Your task to perform on an android device: Open privacy settings Image 0: 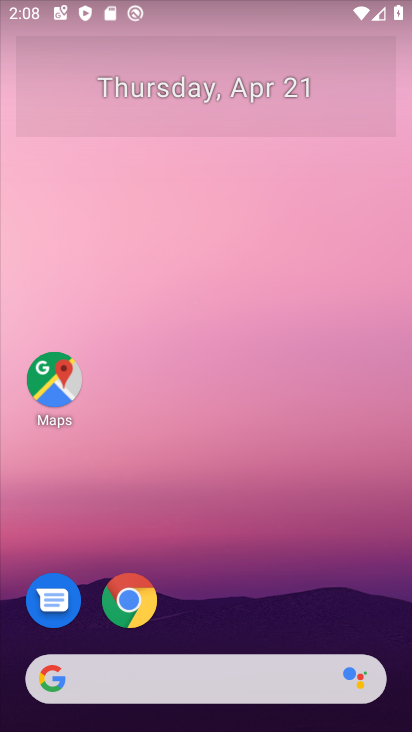
Step 0: drag from (308, 524) to (327, 121)
Your task to perform on an android device: Open privacy settings Image 1: 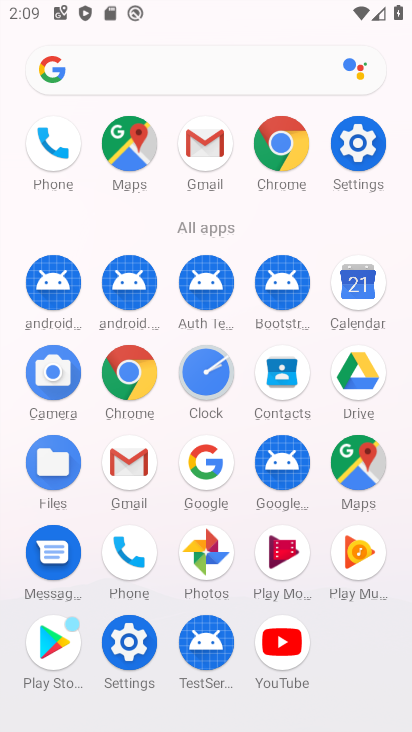
Step 1: click (131, 643)
Your task to perform on an android device: Open privacy settings Image 2: 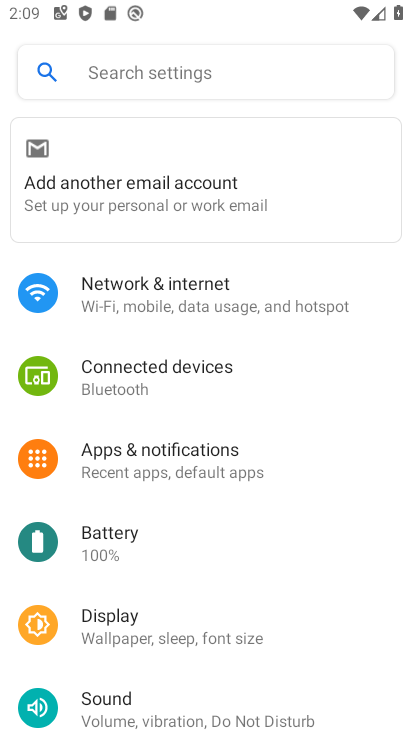
Step 2: drag from (162, 598) to (253, 180)
Your task to perform on an android device: Open privacy settings Image 3: 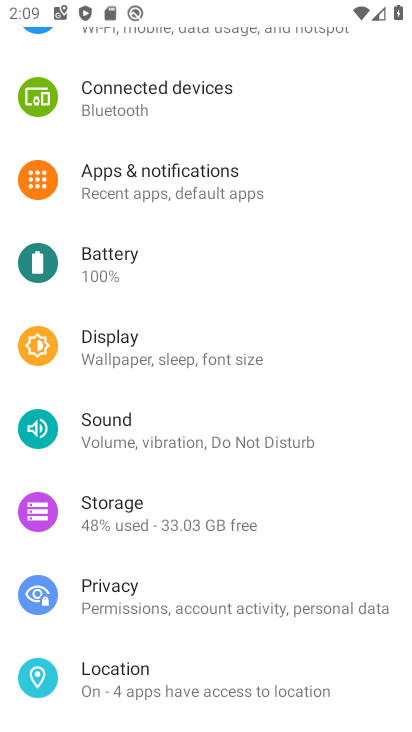
Step 3: drag from (189, 583) to (255, 387)
Your task to perform on an android device: Open privacy settings Image 4: 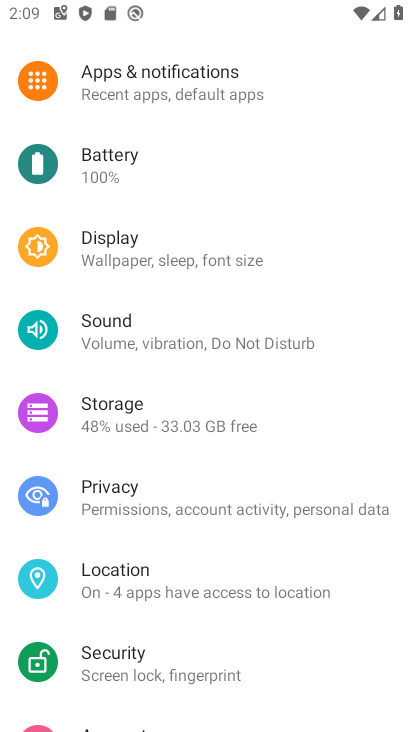
Step 4: click (145, 491)
Your task to perform on an android device: Open privacy settings Image 5: 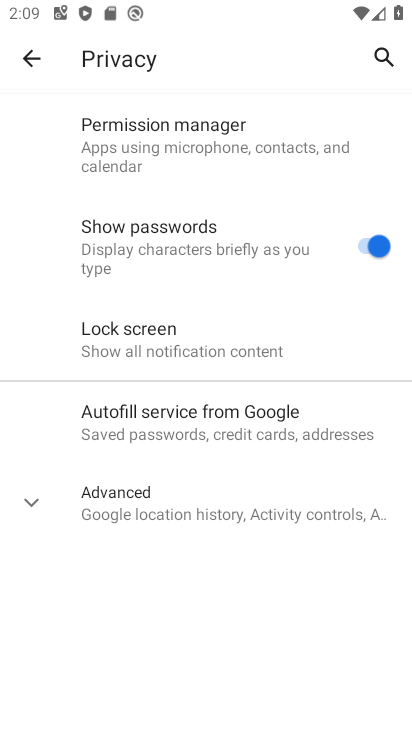
Step 5: task complete